Your task to perform on an android device: turn smart compose on in the gmail app Image 0: 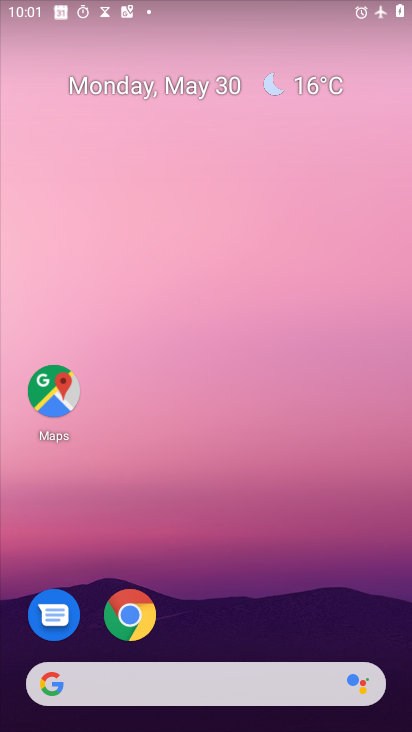
Step 0: drag from (268, 596) to (80, 1)
Your task to perform on an android device: turn smart compose on in the gmail app Image 1: 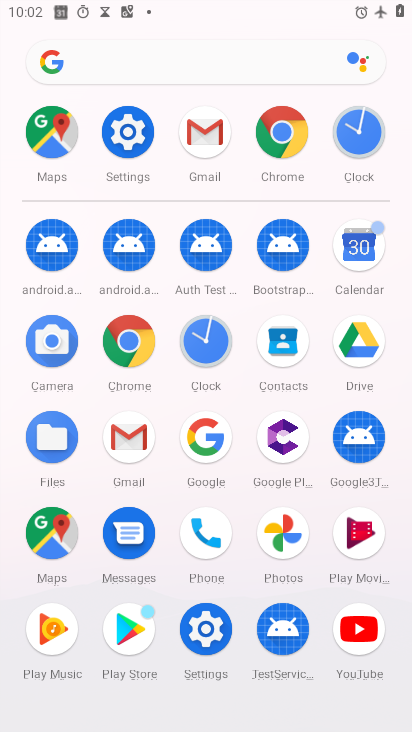
Step 1: click (231, 136)
Your task to perform on an android device: turn smart compose on in the gmail app Image 2: 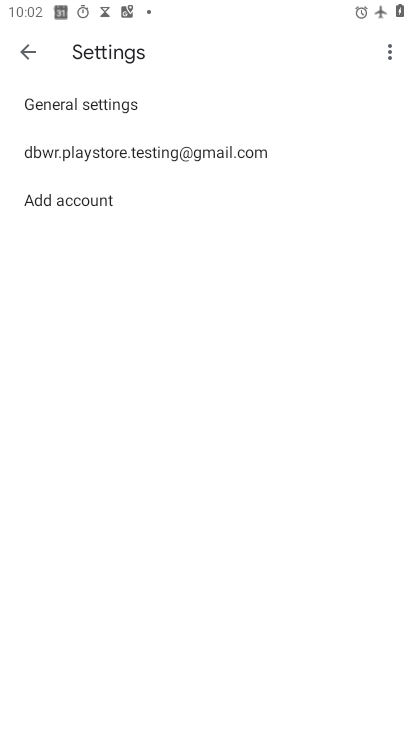
Step 2: click (10, 59)
Your task to perform on an android device: turn smart compose on in the gmail app Image 3: 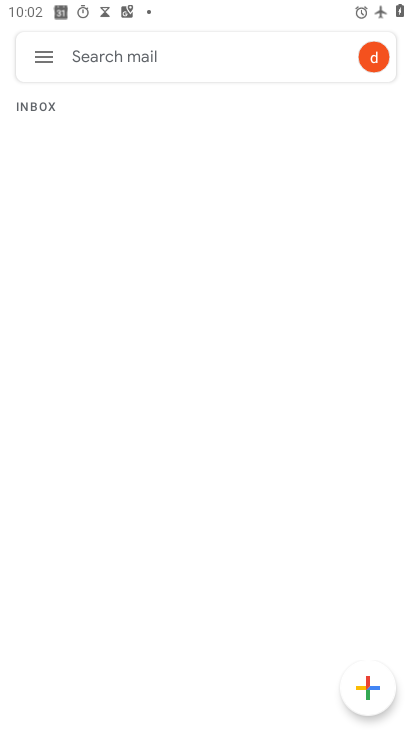
Step 3: click (22, 50)
Your task to perform on an android device: turn smart compose on in the gmail app Image 4: 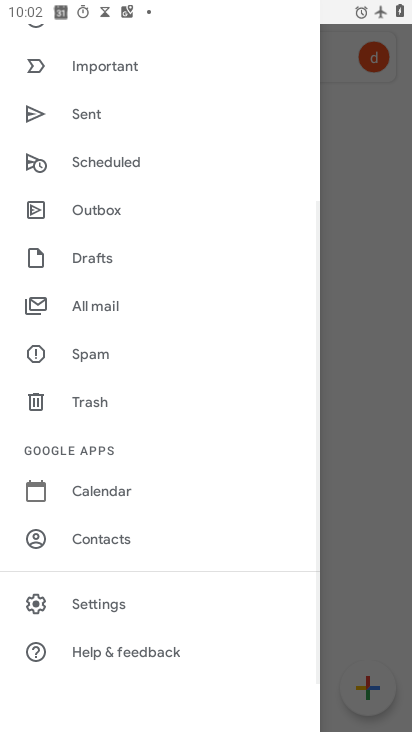
Step 4: click (126, 604)
Your task to perform on an android device: turn smart compose on in the gmail app Image 5: 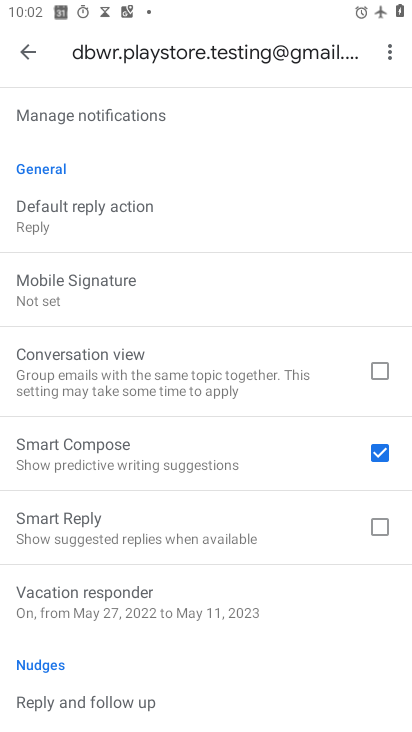
Step 5: task complete